Your task to perform on an android device: change the clock display to analog Image 0: 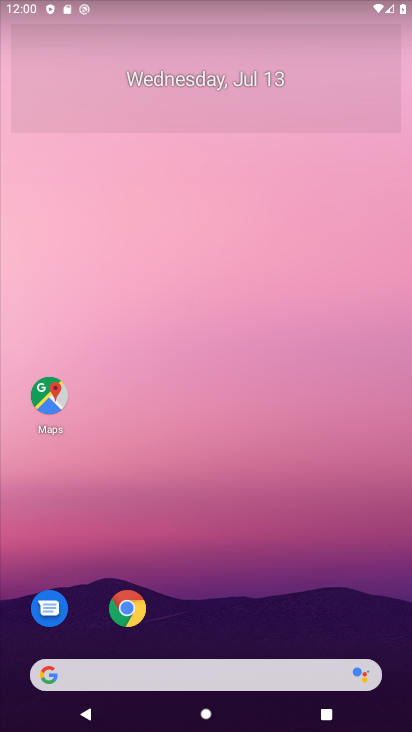
Step 0: drag from (251, 588) to (241, 102)
Your task to perform on an android device: change the clock display to analog Image 1: 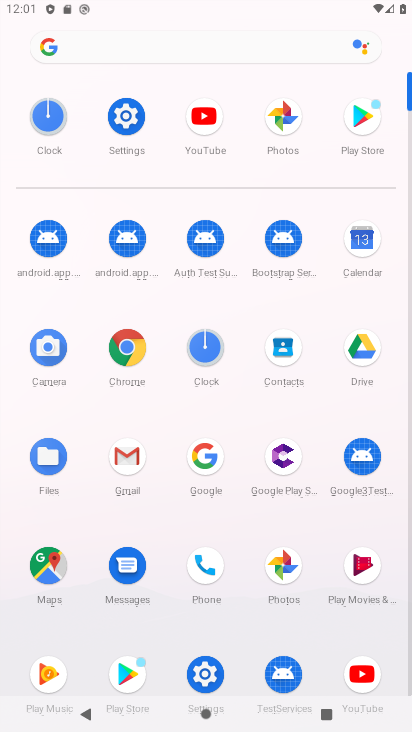
Step 1: click (203, 357)
Your task to perform on an android device: change the clock display to analog Image 2: 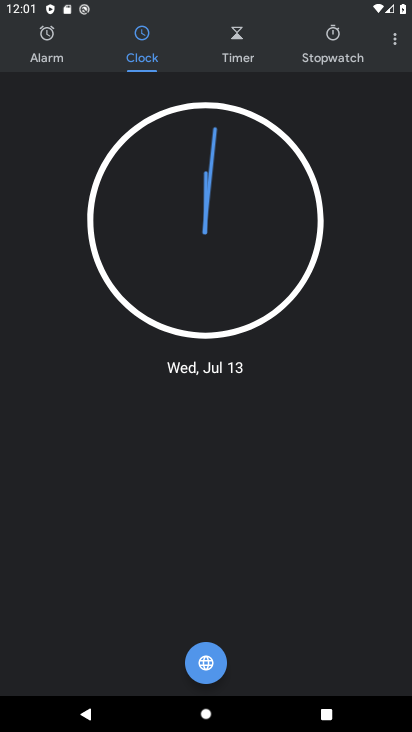
Step 2: click (397, 40)
Your task to perform on an android device: change the clock display to analog Image 3: 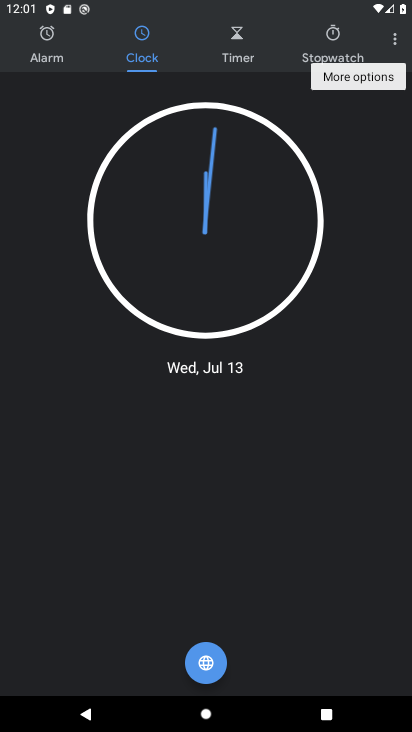
Step 3: click (397, 40)
Your task to perform on an android device: change the clock display to analog Image 4: 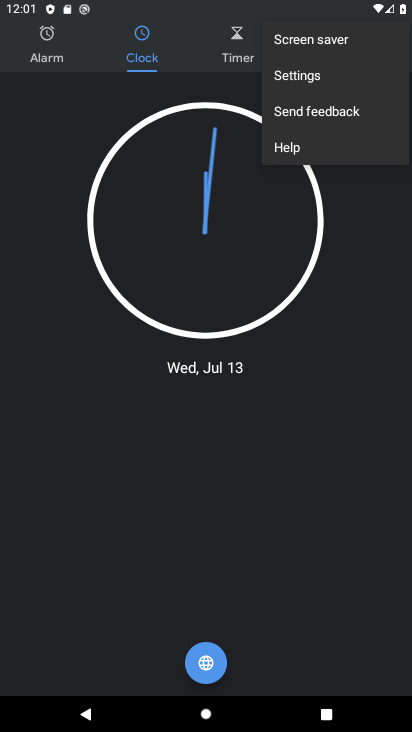
Step 4: click (301, 76)
Your task to perform on an android device: change the clock display to analog Image 5: 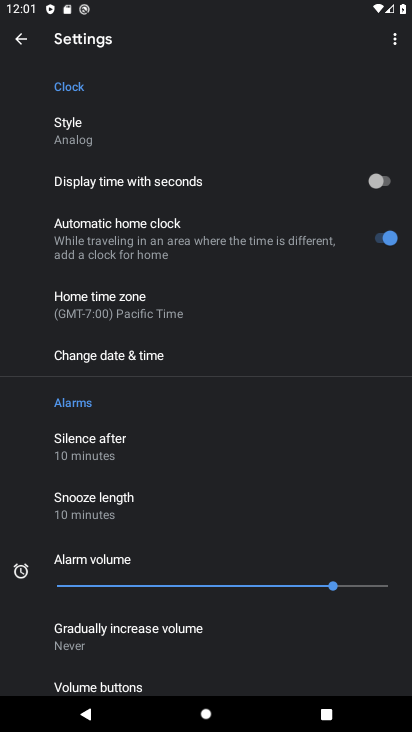
Step 5: click (86, 135)
Your task to perform on an android device: change the clock display to analog Image 6: 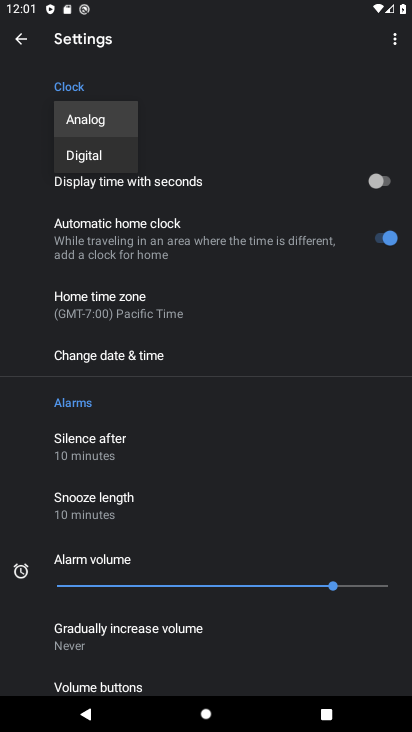
Step 6: click (86, 118)
Your task to perform on an android device: change the clock display to analog Image 7: 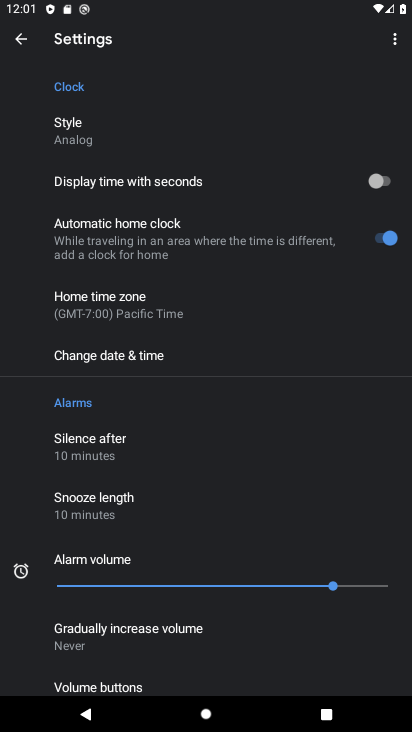
Step 7: task complete